Your task to perform on an android device: Open accessibility settings Image 0: 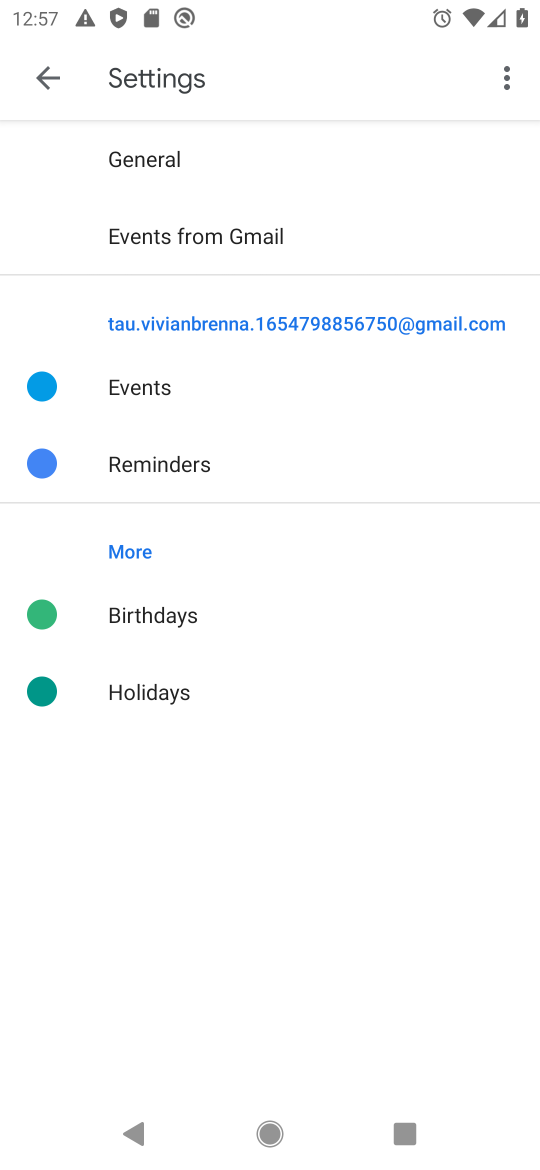
Step 0: task complete